Your task to perform on an android device: turn on notifications settings in the gmail app Image 0: 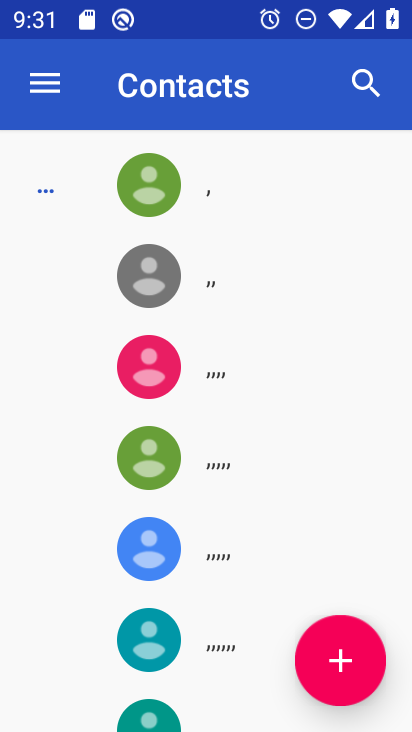
Step 0: press home button
Your task to perform on an android device: turn on notifications settings in the gmail app Image 1: 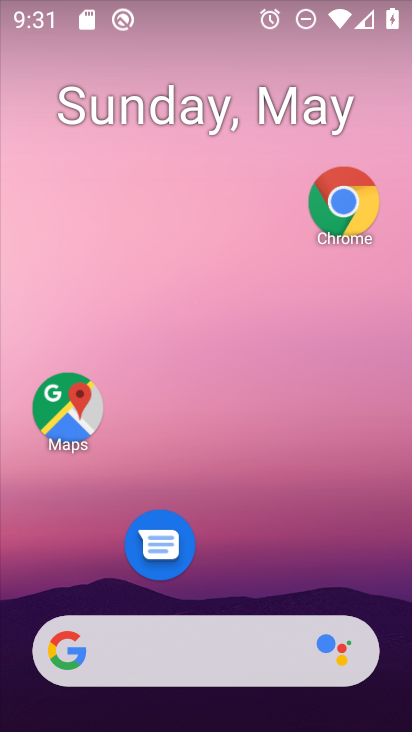
Step 1: drag from (239, 565) to (242, 14)
Your task to perform on an android device: turn on notifications settings in the gmail app Image 2: 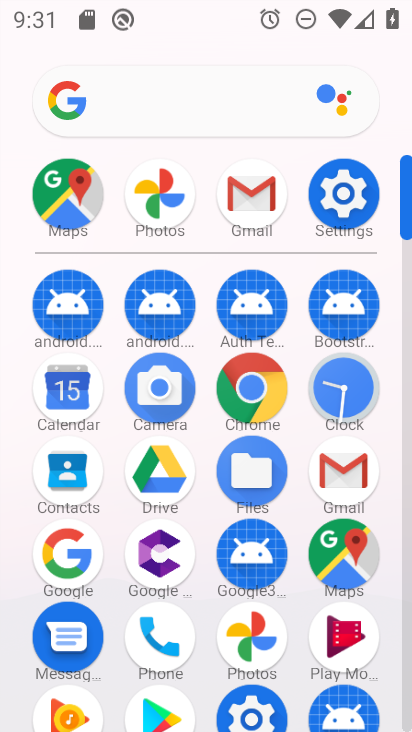
Step 2: click (338, 476)
Your task to perform on an android device: turn on notifications settings in the gmail app Image 3: 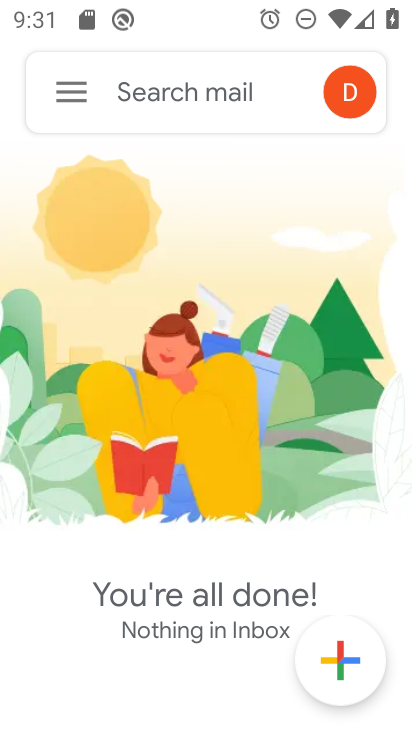
Step 3: click (62, 90)
Your task to perform on an android device: turn on notifications settings in the gmail app Image 4: 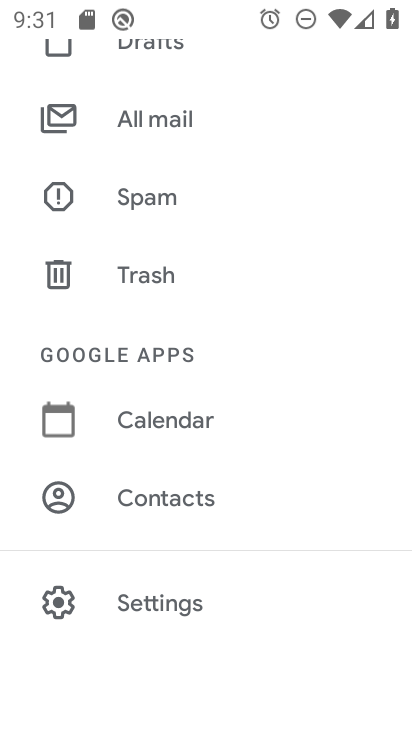
Step 4: click (171, 592)
Your task to perform on an android device: turn on notifications settings in the gmail app Image 5: 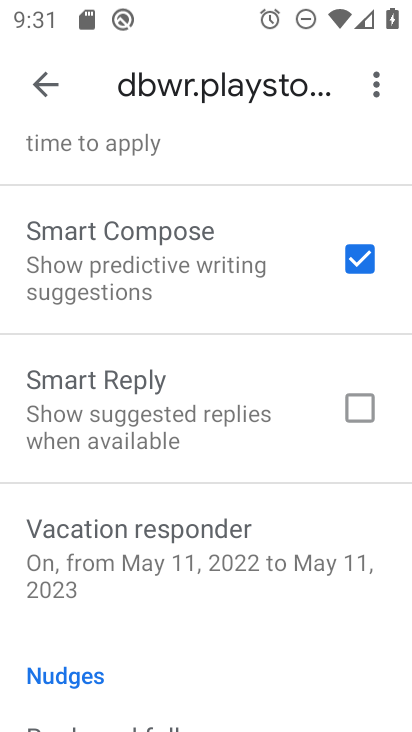
Step 5: drag from (181, 255) to (195, 603)
Your task to perform on an android device: turn on notifications settings in the gmail app Image 6: 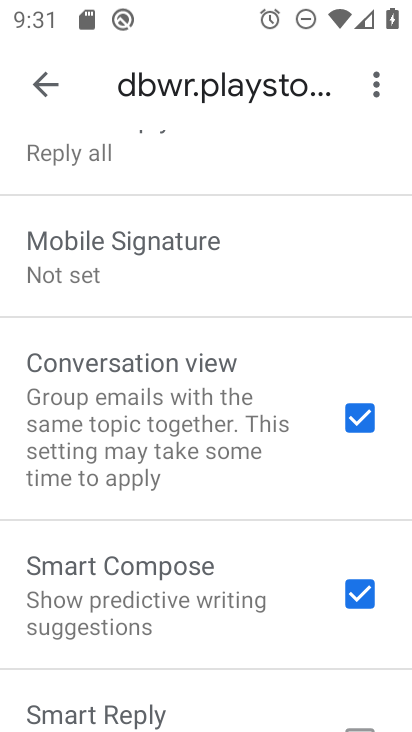
Step 6: drag from (154, 215) to (183, 516)
Your task to perform on an android device: turn on notifications settings in the gmail app Image 7: 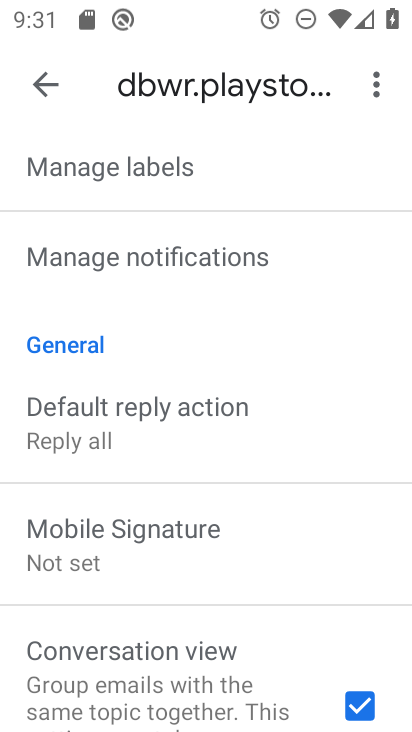
Step 7: click (162, 264)
Your task to perform on an android device: turn on notifications settings in the gmail app Image 8: 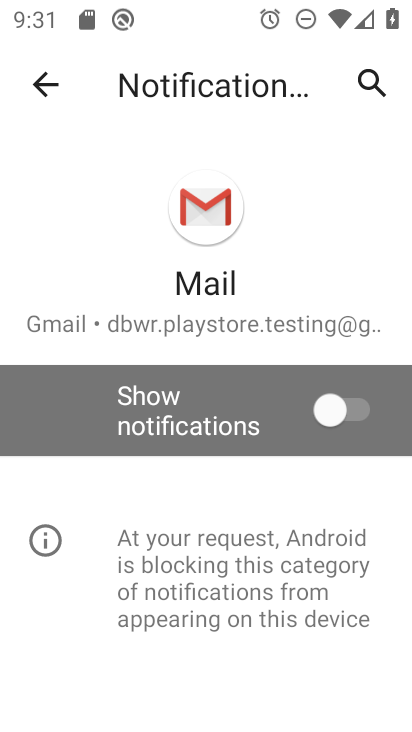
Step 8: click (344, 411)
Your task to perform on an android device: turn on notifications settings in the gmail app Image 9: 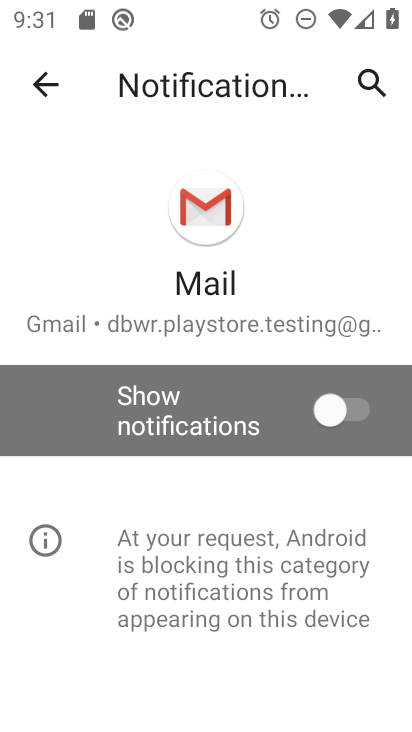
Step 9: click (325, 407)
Your task to perform on an android device: turn on notifications settings in the gmail app Image 10: 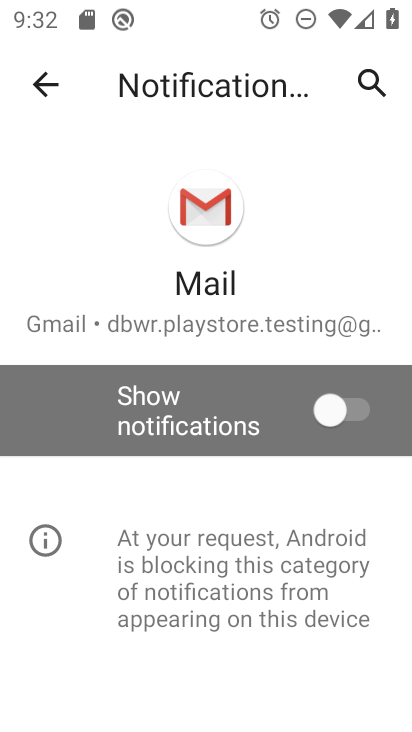
Step 10: click (327, 405)
Your task to perform on an android device: turn on notifications settings in the gmail app Image 11: 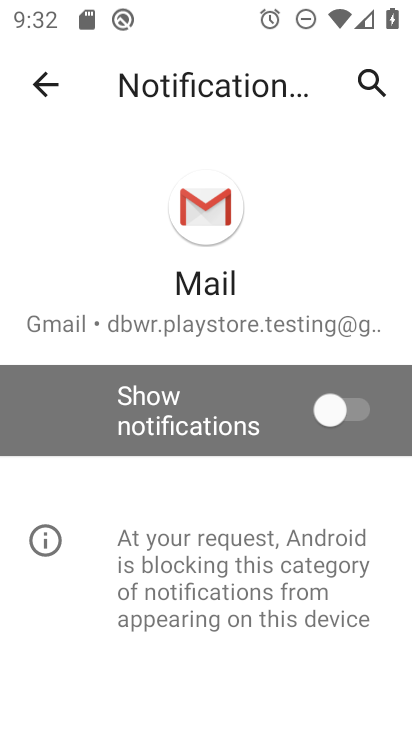
Step 11: click (327, 405)
Your task to perform on an android device: turn on notifications settings in the gmail app Image 12: 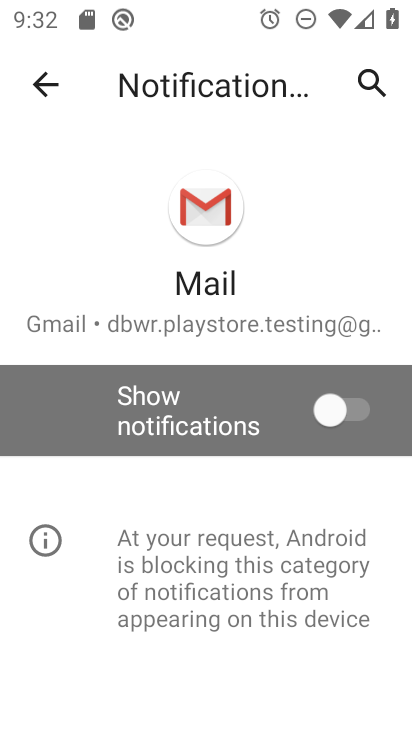
Step 12: click (327, 396)
Your task to perform on an android device: turn on notifications settings in the gmail app Image 13: 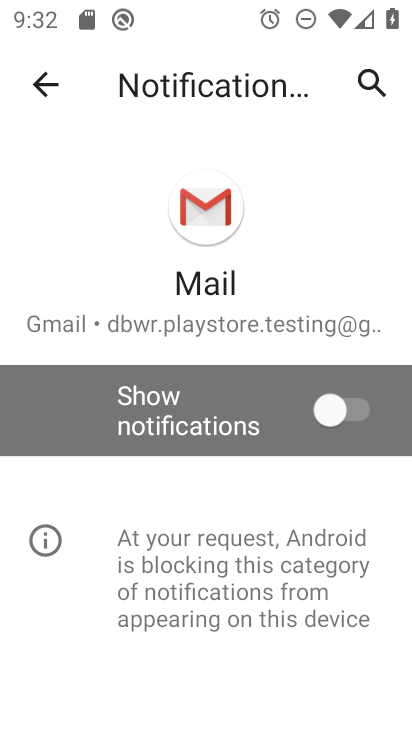
Step 13: click (327, 392)
Your task to perform on an android device: turn on notifications settings in the gmail app Image 14: 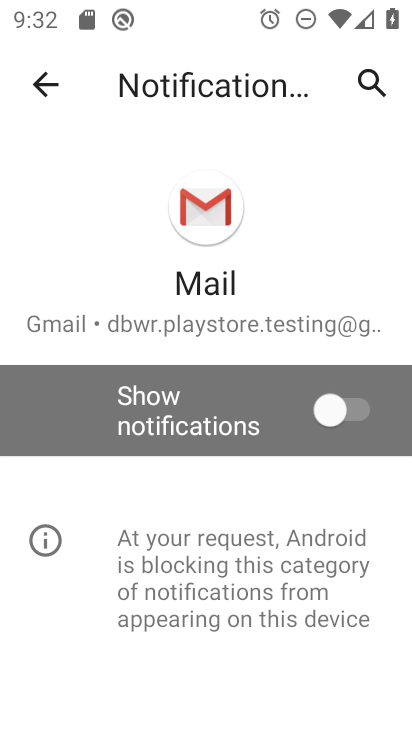
Step 14: click (327, 392)
Your task to perform on an android device: turn on notifications settings in the gmail app Image 15: 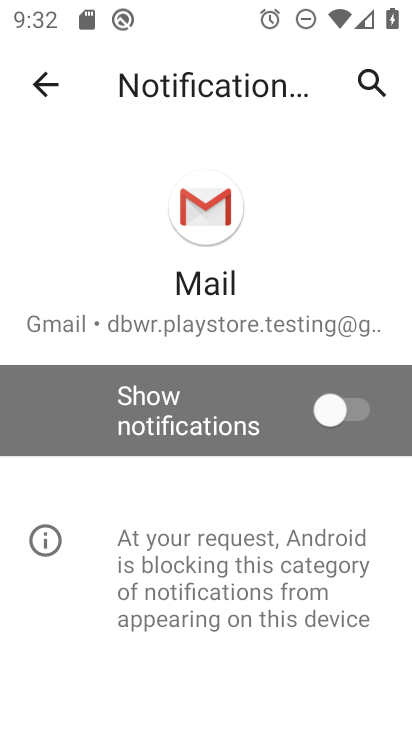
Step 15: task complete